Your task to perform on an android device: Show me popular games on the Play Store Image 0: 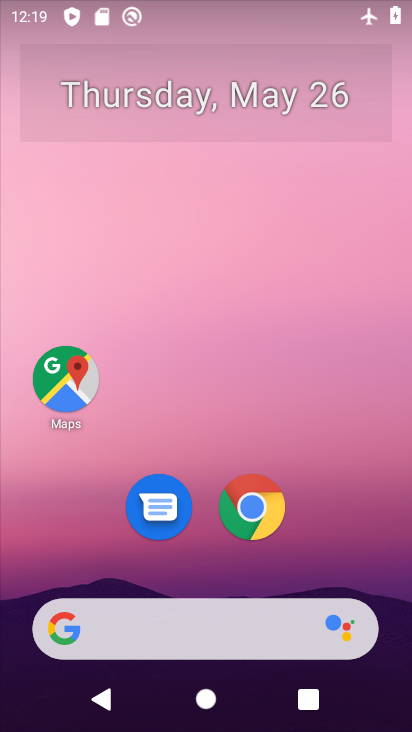
Step 0: drag from (193, 555) to (237, 171)
Your task to perform on an android device: Show me popular games on the Play Store Image 1: 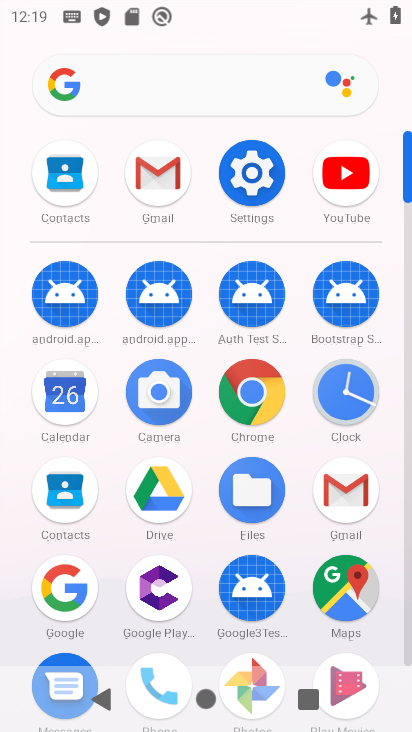
Step 1: drag from (212, 629) to (226, 310)
Your task to perform on an android device: Show me popular games on the Play Store Image 2: 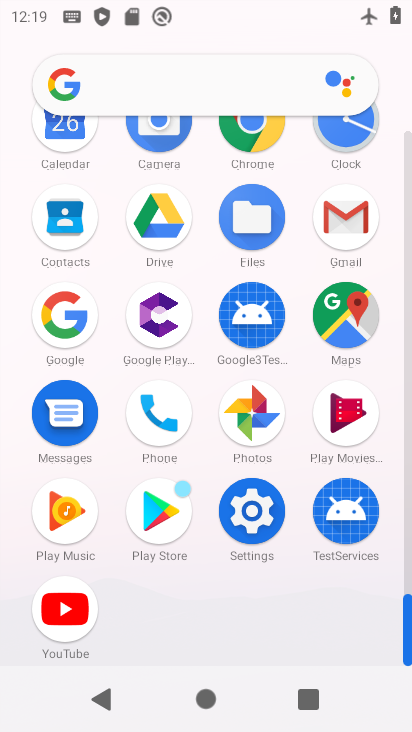
Step 2: click (164, 513)
Your task to perform on an android device: Show me popular games on the Play Store Image 3: 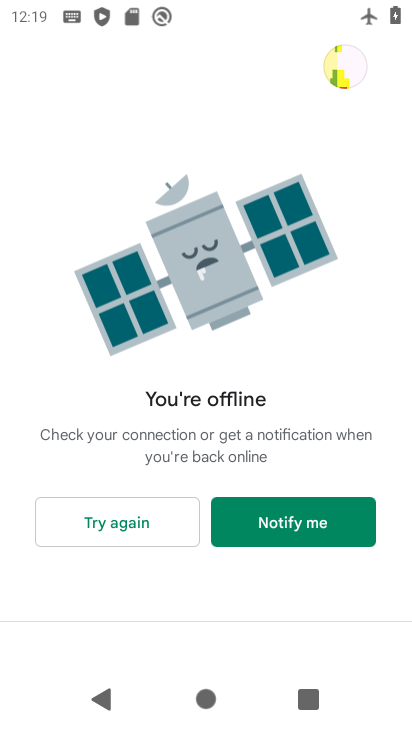
Step 3: task complete